Your task to perform on an android device: check storage Image 0: 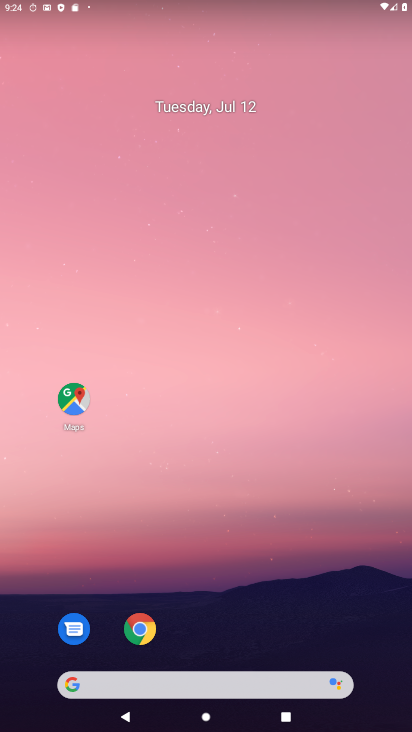
Step 0: drag from (307, 710) to (220, 299)
Your task to perform on an android device: check storage Image 1: 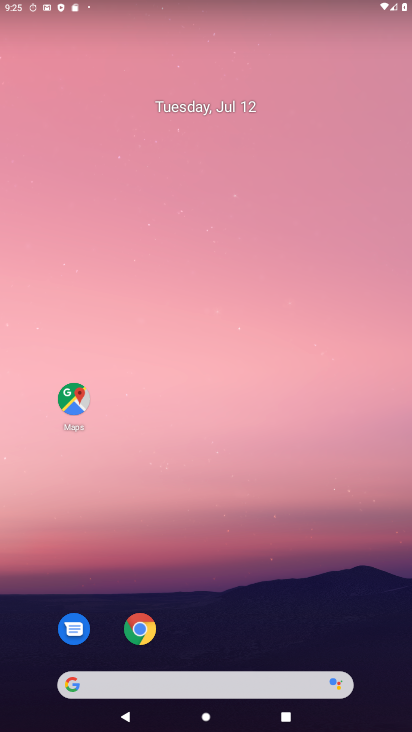
Step 1: drag from (300, 603) to (215, 162)
Your task to perform on an android device: check storage Image 2: 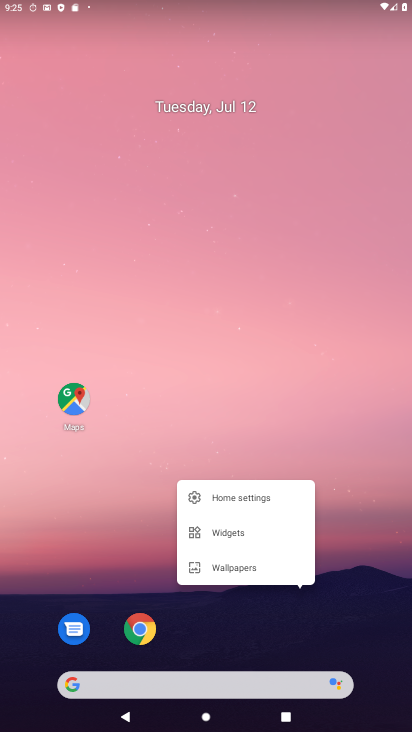
Step 2: drag from (255, 568) to (163, 146)
Your task to perform on an android device: check storage Image 3: 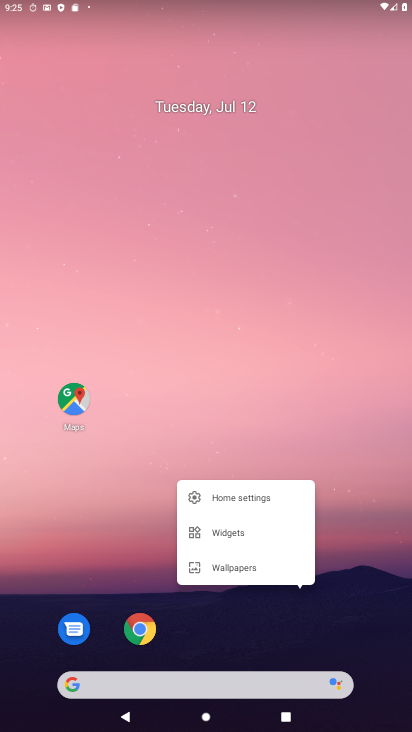
Step 3: drag from (223, 482) to (161, 226)
Your task to perform on an android device: check storage Image 4: 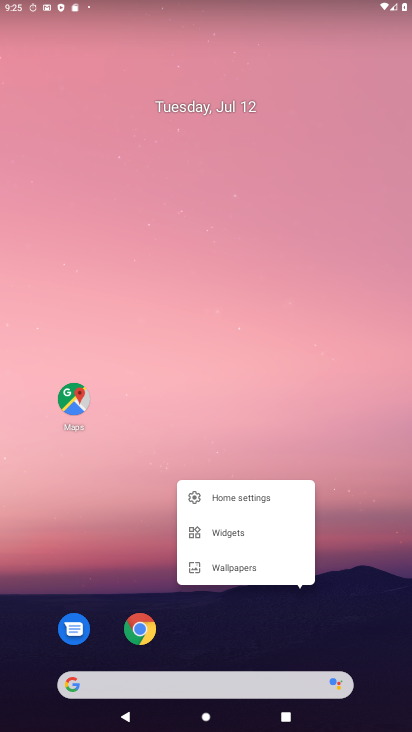
Step 4: drag from (325, 557) to (252, 94)
Your task to perform on an android device: check storage Image 5: 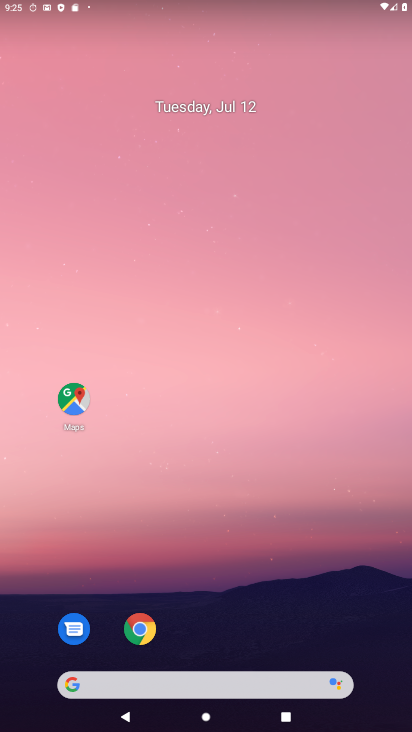
Step 5: drag from (386, 577) to (190, 170)
Your task to perform on an android device: check storage Image 6: 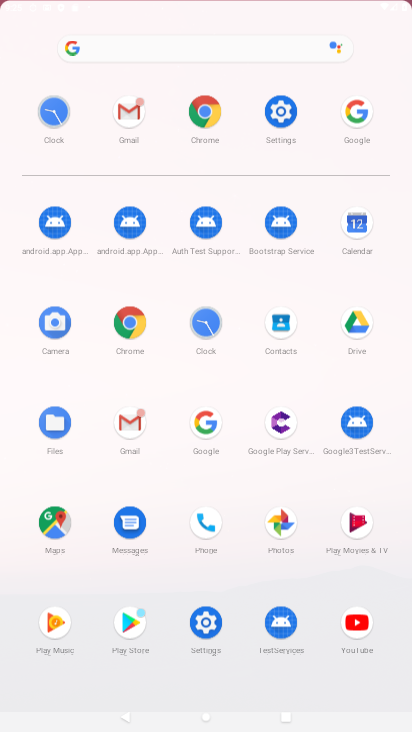
Step 6: drag from (199, 509) to (142, 138)
Your task to perform on an android device: check storage Image 7: 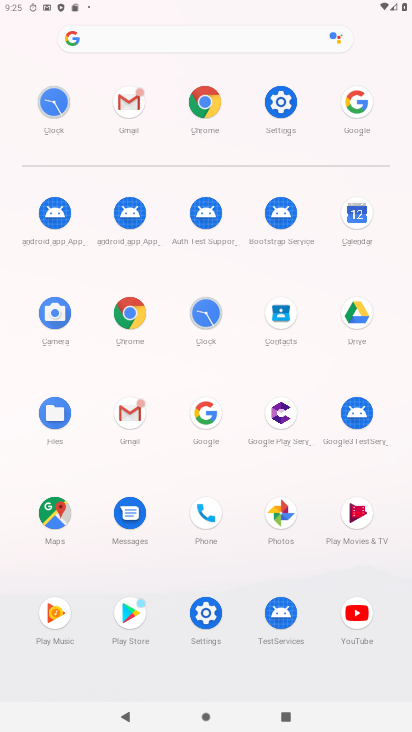
Step 7: click (199, 623)
Your task to perform on an android device: check storage Image 8: 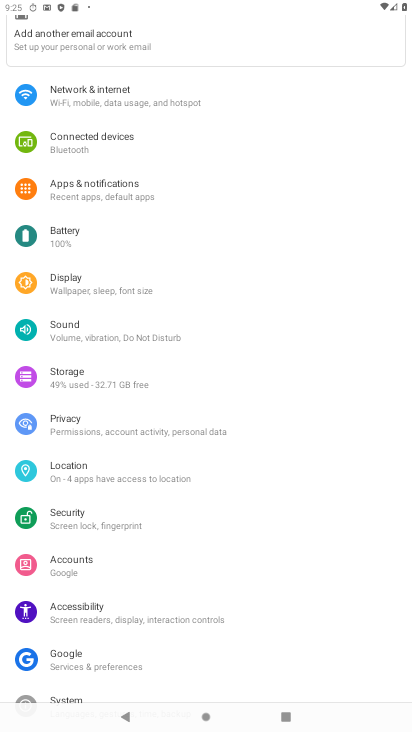
Step 8: click (78, 381)
Your task to perform on an android device: check storage Image 9: 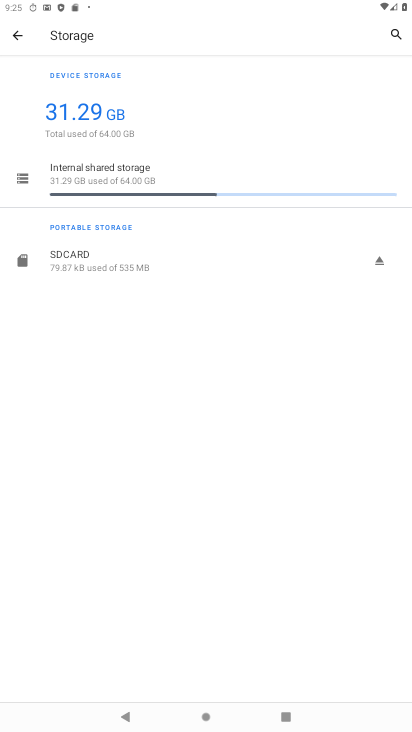
Step 9: task complete